Your task to perform on an android device: Open Google Chrome Image 0: 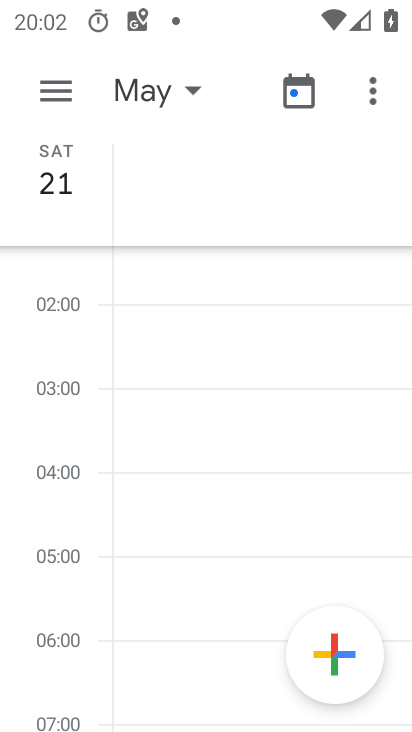
Step 0: press home button
Your task to perform on an android device: Open Google Chrome Image 1: 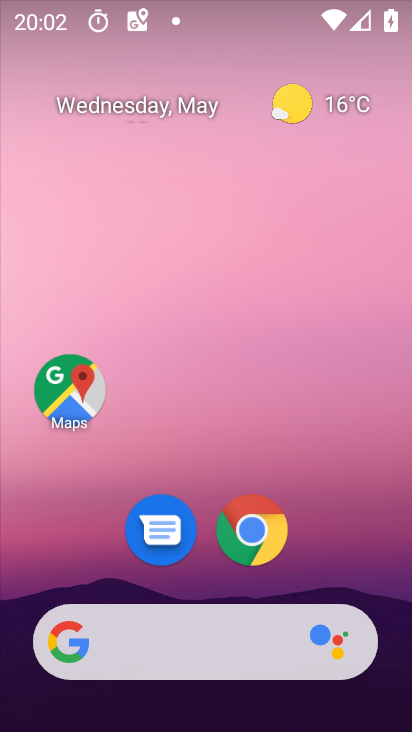
Step 1: click (252, 540)
Your task to perform on an android device: Open Google Chrome Image 2: 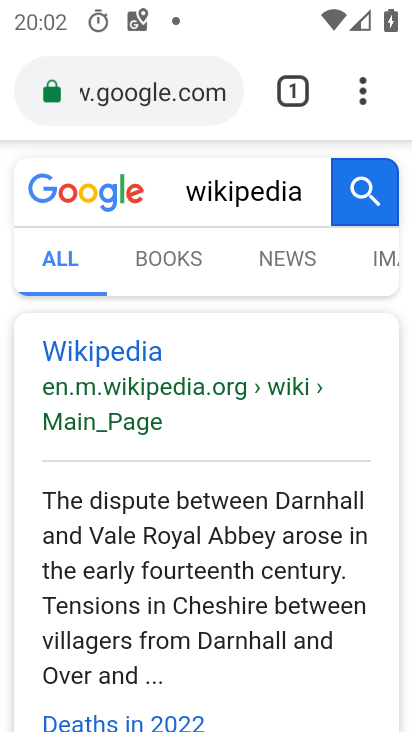
Step 2: task complete